Your task to perform on an android device: turn off airplane mode Image 0: 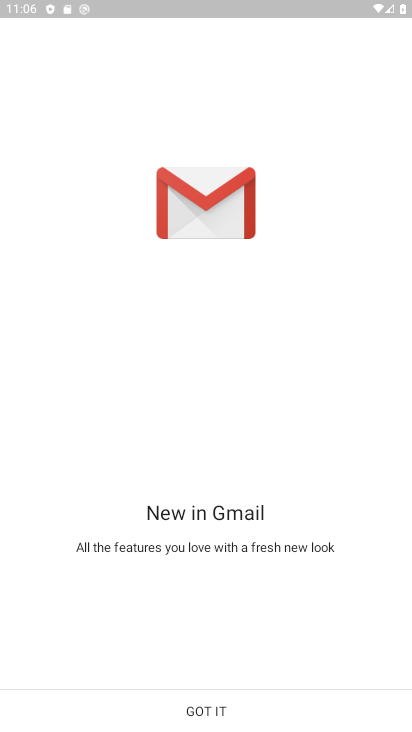
Step 0: click (218, 713)
Your task to perform on an android device: turn off airplane mode Image 1: 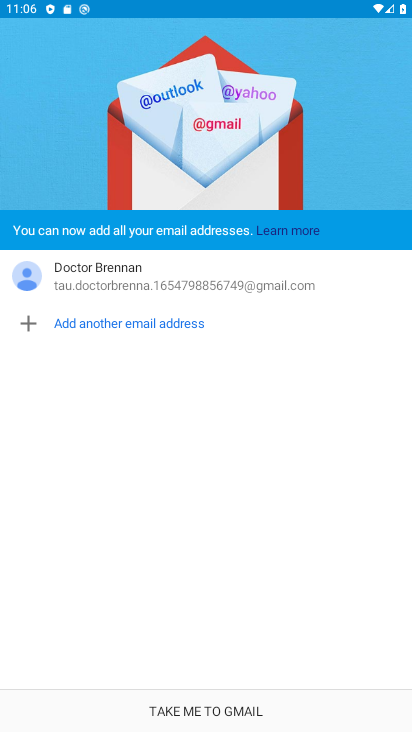
Step 1: press home button
Your task to perform on an android device: turn off airplane mode Image 2: 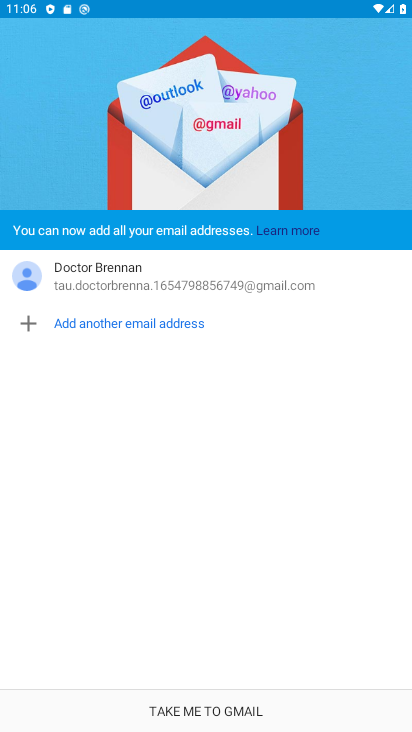
Step 2: drag from (276, 542) to (296, 329)
Your task to perform on an android device: turn off airplane mode Image 3: 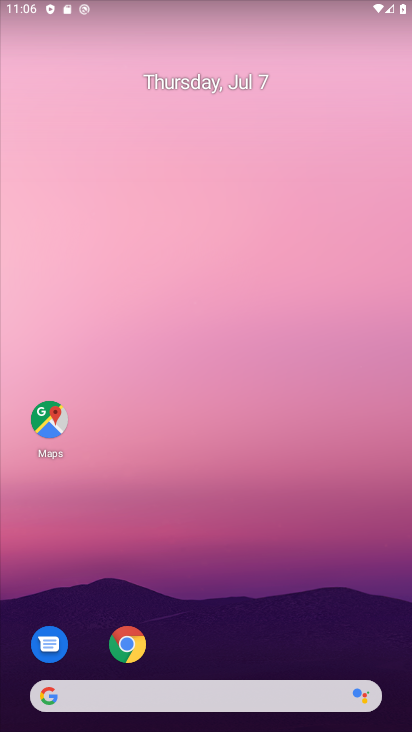
Step 3: drag from (216, 610) to (182, 258)
Your task to perform on an android device: turn off airplane mode Image 4: 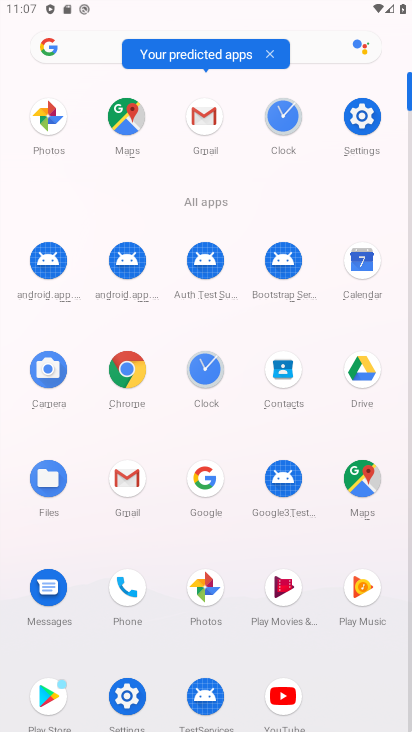
Step 4: click (357, 117)
Your task to perform on an android device: turn off airplane mode Image 5: 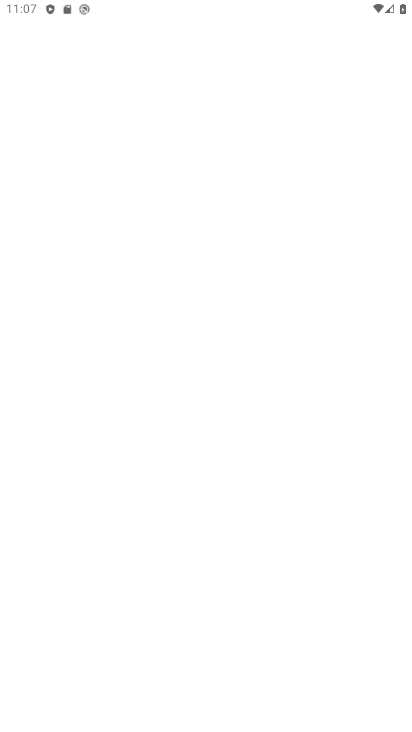
Step 5: drag from (217, 617) to (264, 245)
Your task to perform on an android device: turn off airplane mode Image 6: 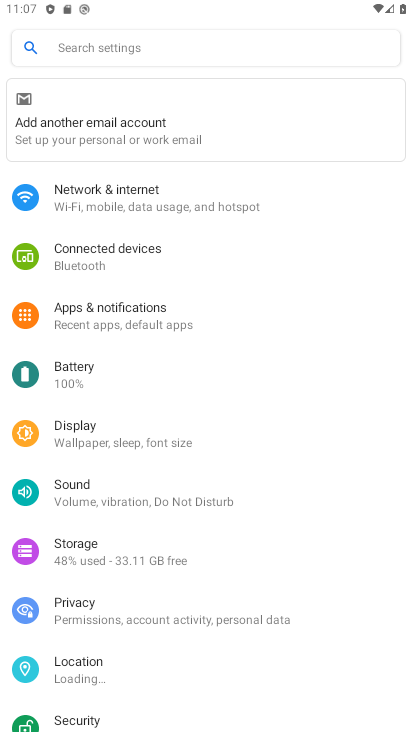
Step 6: drag from (212, 187) to (239, 491)
Your task to perform on an android device: turn off airplane mode Image 7: 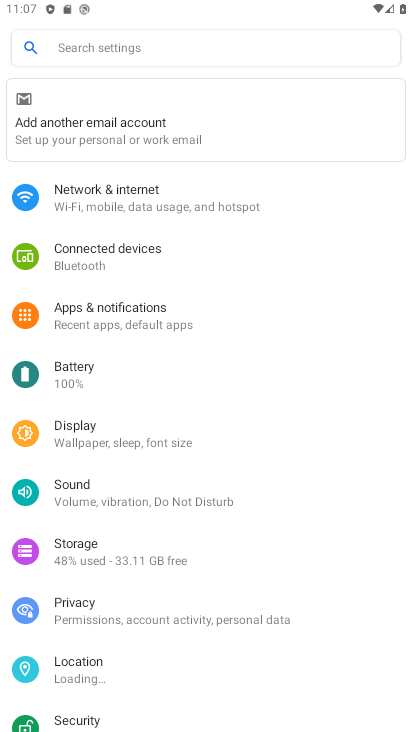
Step 7: click (164, 192)
Your task to perform on an android device: turn off airplane mode Image 8: 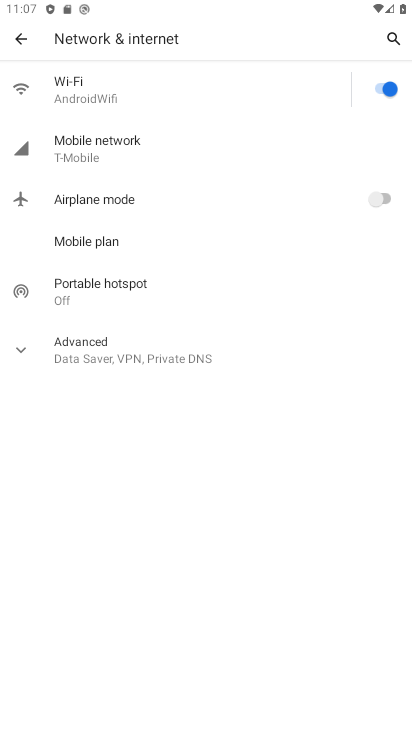
Step 8: task complete